Your task to perform on an android device: Open my contact list Image 0: 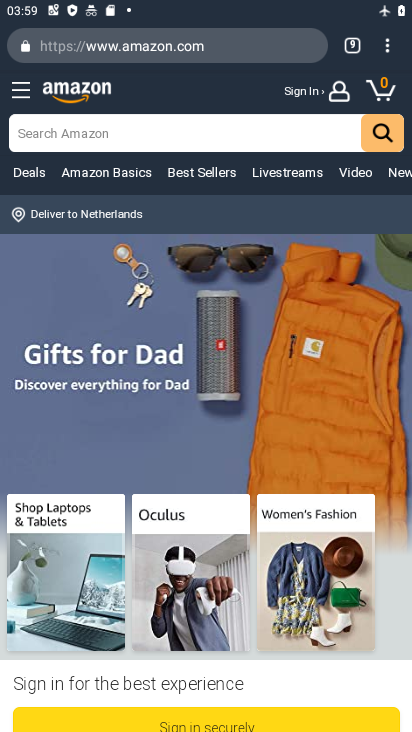
Step 0: press home button
Your task to perform on an android device: Open my contact list Image 1: 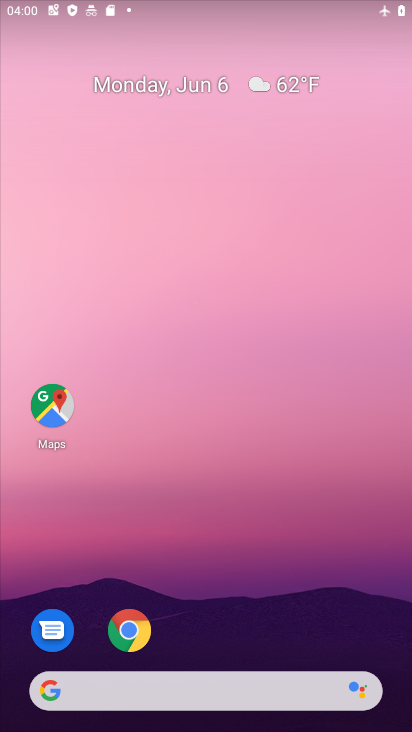
Step 1: drag from (319, 684) to (242, 54)
Your task to perform on an android device: Open my contact list Image 2: 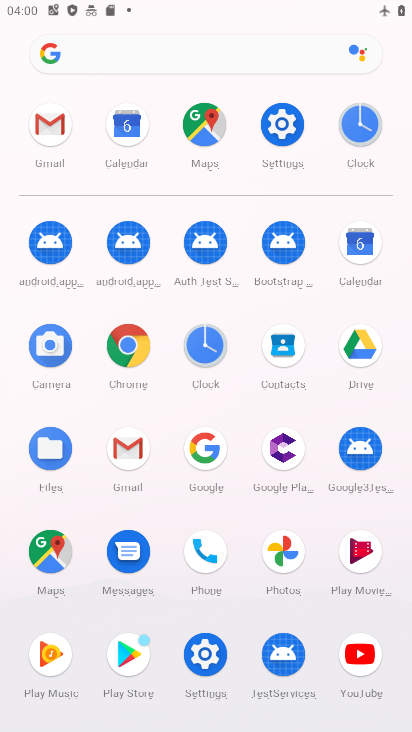
Step 2: click (299, 358)
Your task to perform on an android device: Open my contact list Image 3: 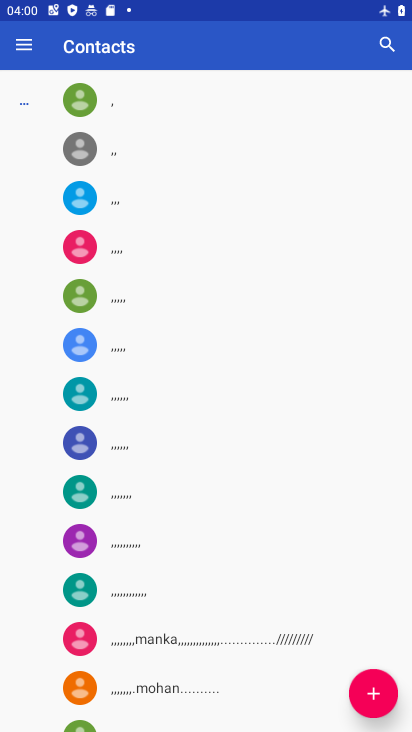
Step 3: task complete